Your task to perform on an android device: Search for seafood restaurants on Google Maps Image 0: 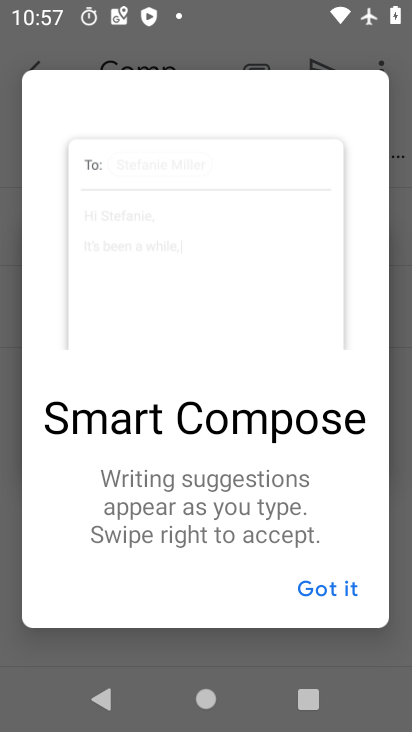
Step 0: press home button
Your task to perform on an android device: Search for seafood restaurants on Google Maps Image 1: 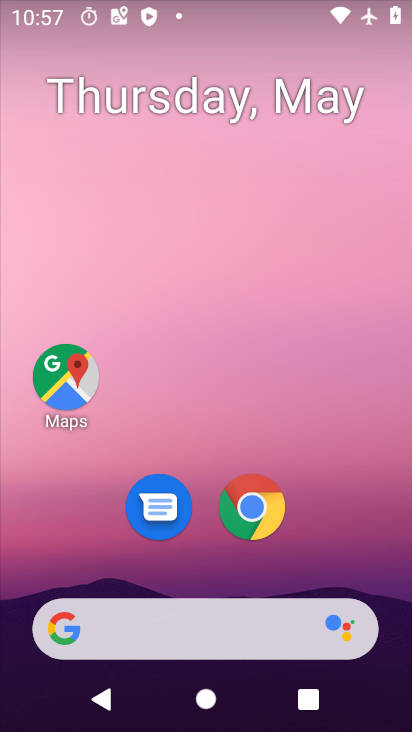
Step 1: drag from (317, 488) to (268, 11)
Your task to perform on an android device: Search for seafood restaurants on Google Maps Image 2: 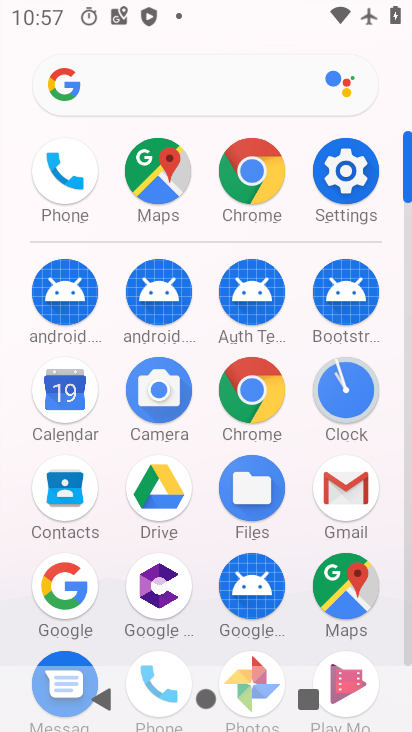
Step 2: click (155, 164)
Your task to perform on an android device: Search for seafood restaurants on Google Maps Image 3: 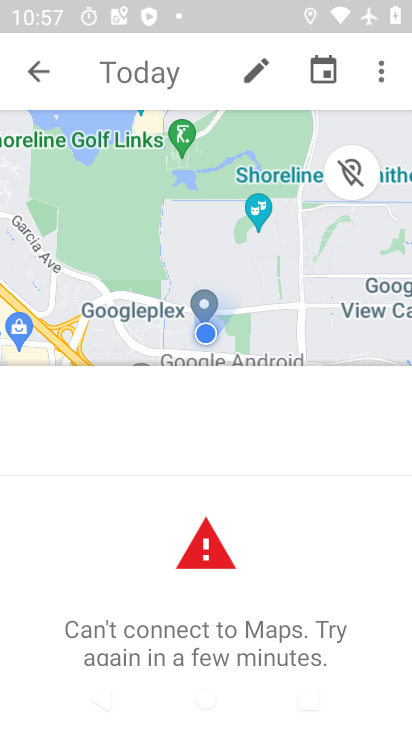
Step 3: click (45, 66)
Your task to perform on an android device: Search for seafood restaurants on Google Maps Image 4: 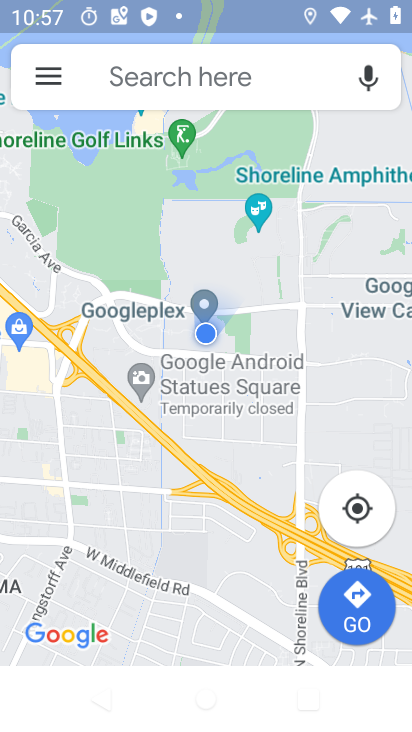
Step 4: click (285, 80)
Your task to perform on an android device: Search for seafood restaurants on Google Maps Image 5: 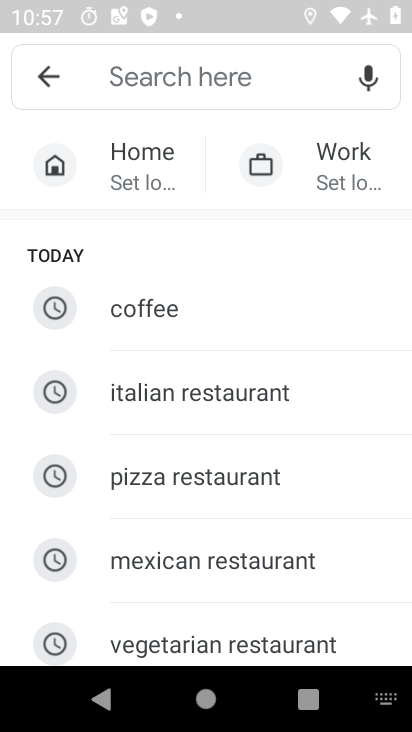
Step 5: drag from (261, 561) to (270, 263)
Your task to perform on an android device: Search for seafood restaurants on Google Maps Image 6: 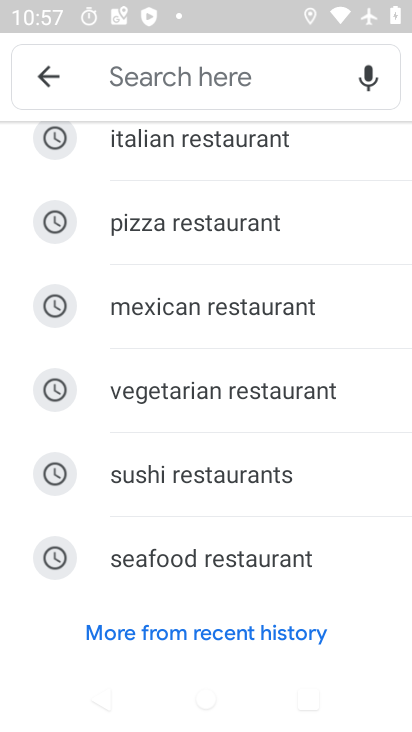
Step 6: click (212, 553)
Your task to perform on an android device: Search for seafood restaurants on Google Maps Image 7: 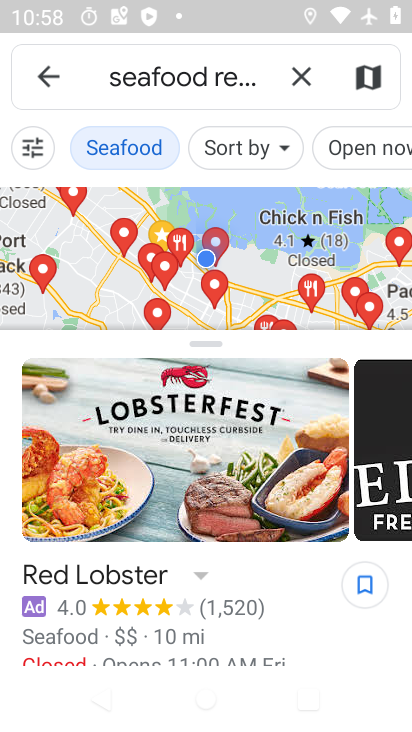
Step 7: task complete